Your task to perform on an android device: check data usage Image 0: 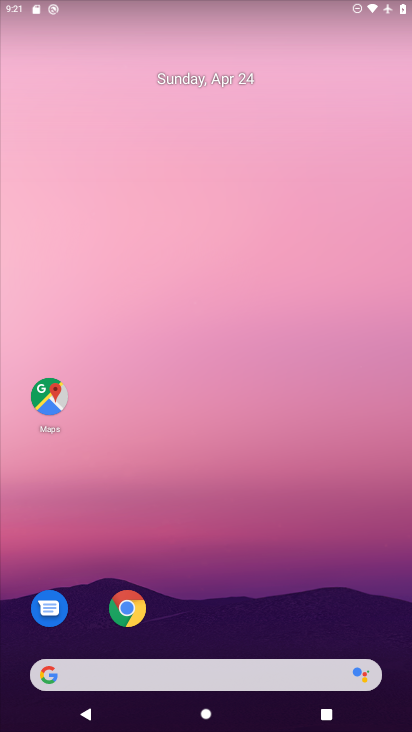
Step 0: drag from (219, 439) to (262, 99)
Your task to perform on an android device: check data usage Image 1: 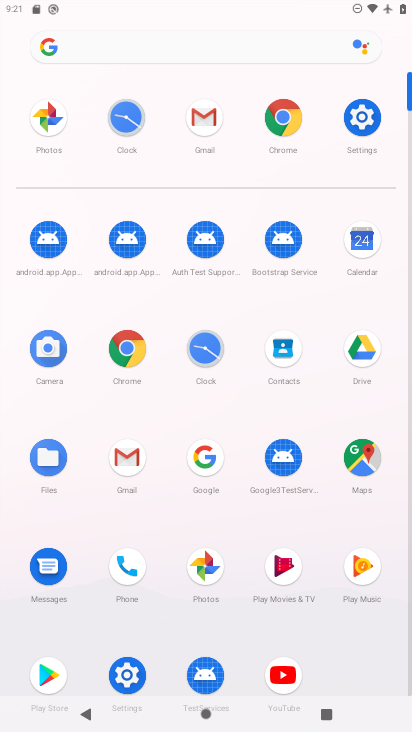
Step 1: click (355, 131)
Your task to perform on an android device: check data usage Image 2: 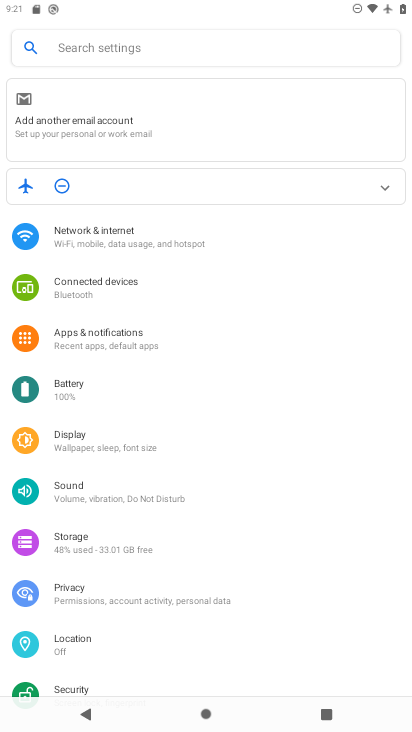
Step 2: click (126, 239)
Your task to perform on an android device: check data usage Image 3: 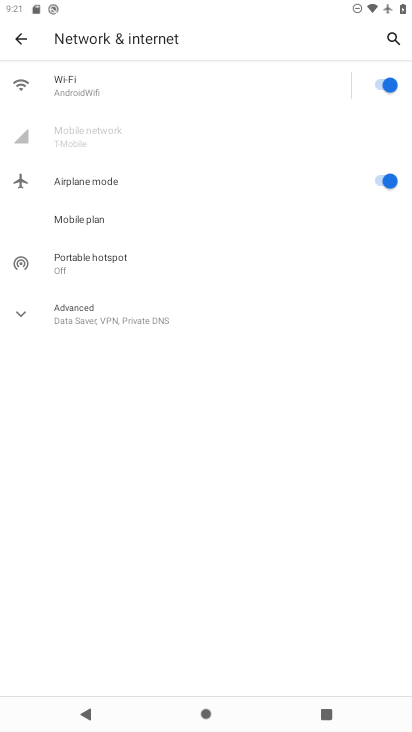
Step 3: task complete